Your task to perform on an android device: check android version Image 0: 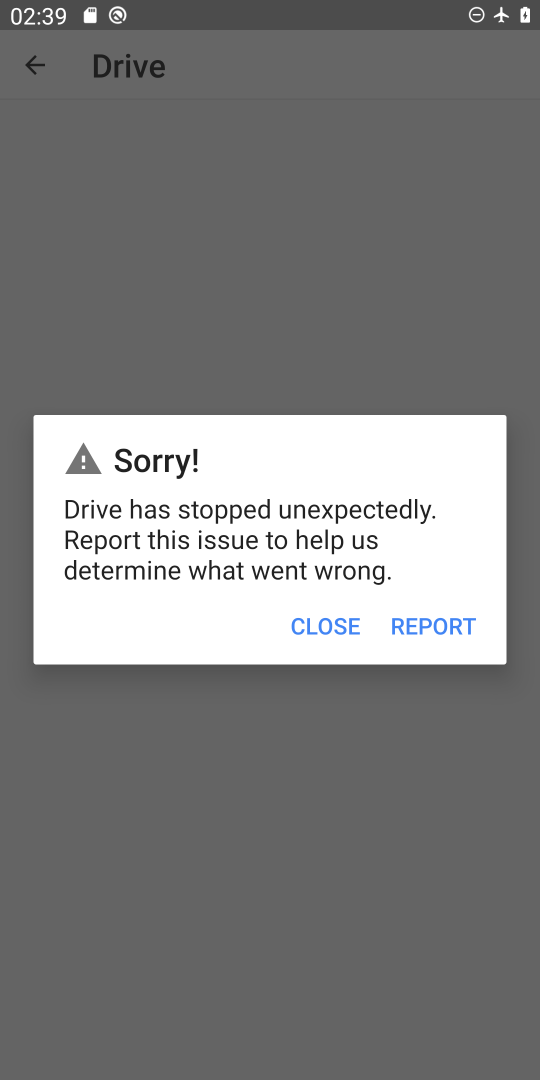
Step 0: press home button
Your task to perform on an android device: check android version Image 1: 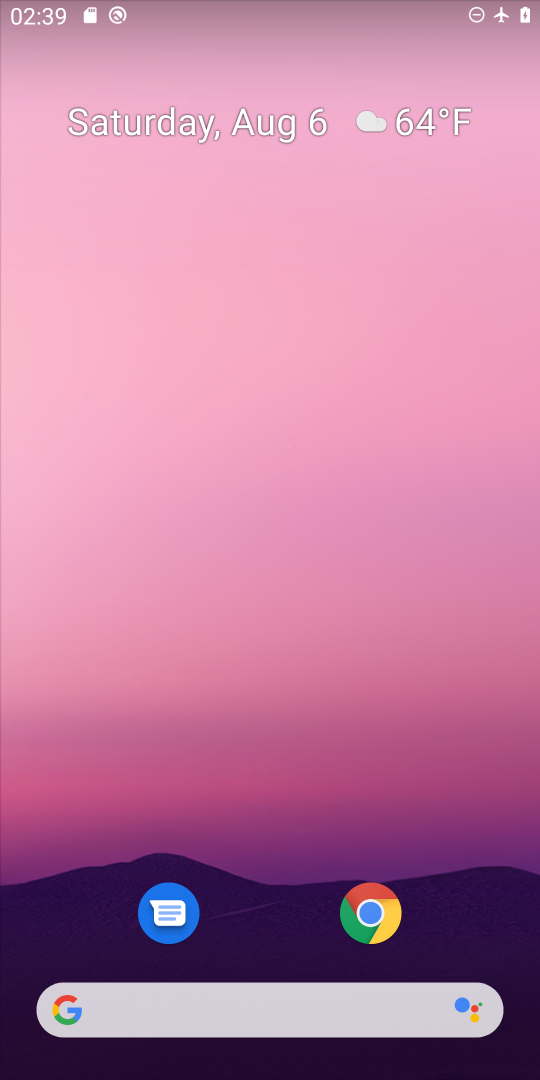
Step 1: drag from (440, 926) to (440, 308)
Your task to perform on an android device: check android version Image 2: 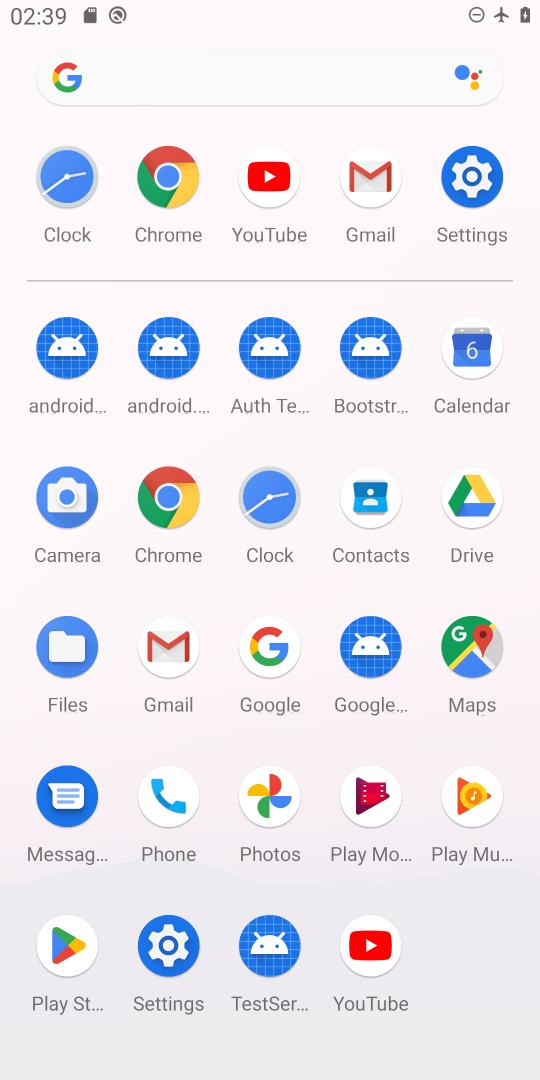
Step 2: click (168, 934)
Your task to perform on an android device: check android version Image 3: 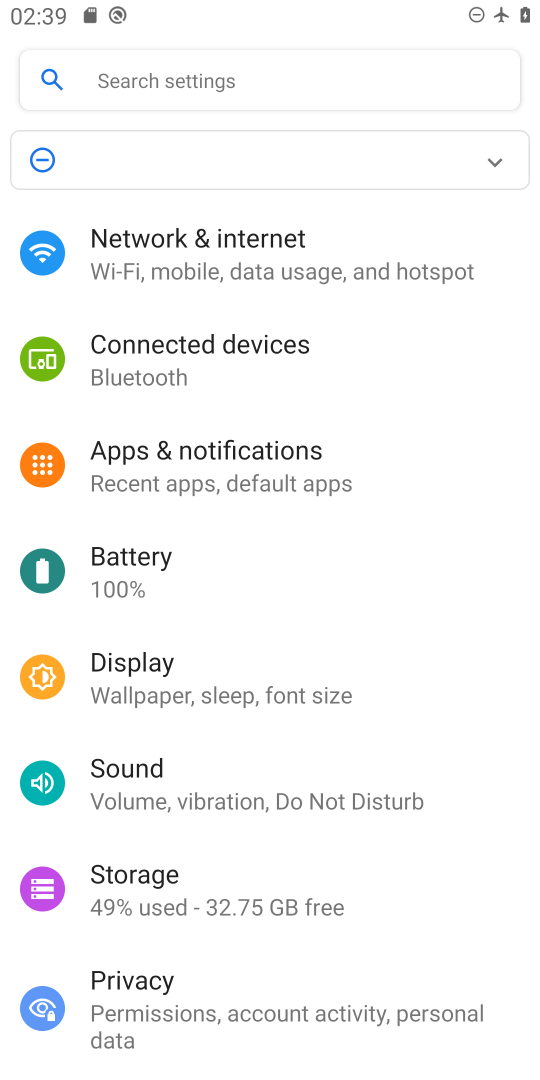
Step 3: drag from (464, 783) to (452, 665)
Your task to perform on an android device: check android version Image 4: 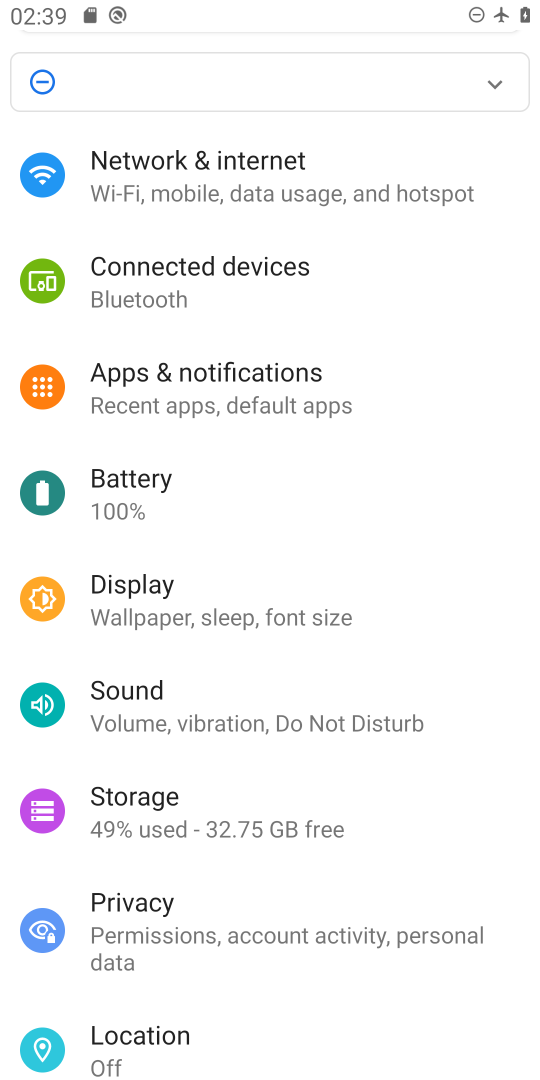
Step 4: drag from (461, 964) to (460, 798)
Your task to perform on an android device: check android version Image 5: 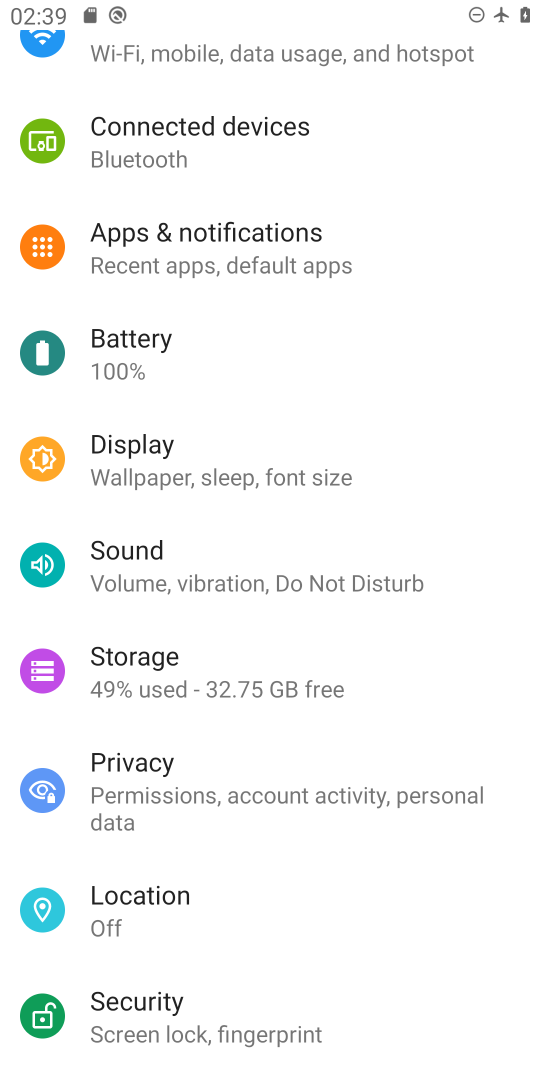
Step 5: drag from (439, 902) to (443, 742)
Your task to perform on an android device: check android version Image 6: 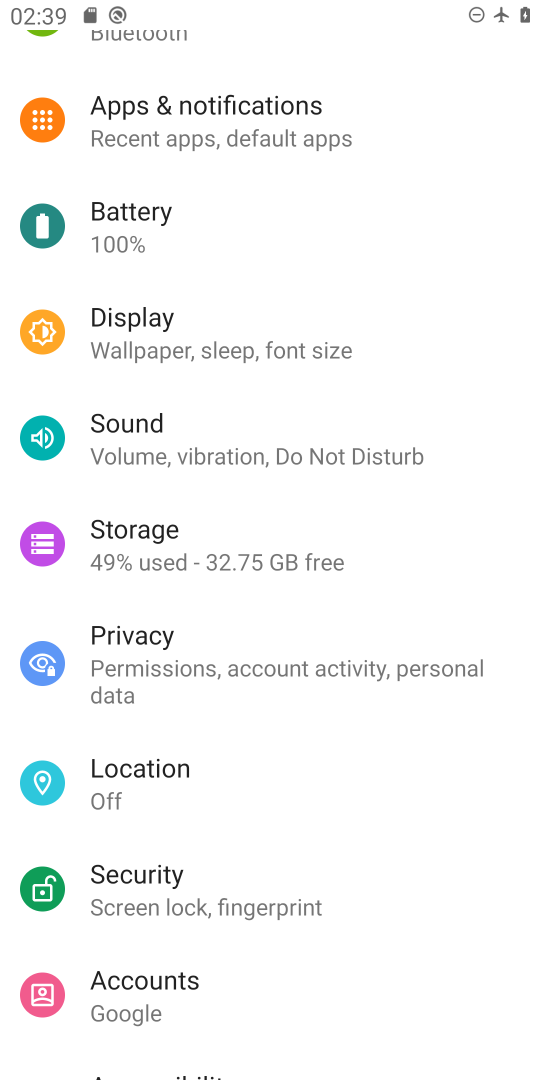
Step 6: drag from (428, 896) to (435, 740)
Your task to perform on an android device: check android version Image 7: 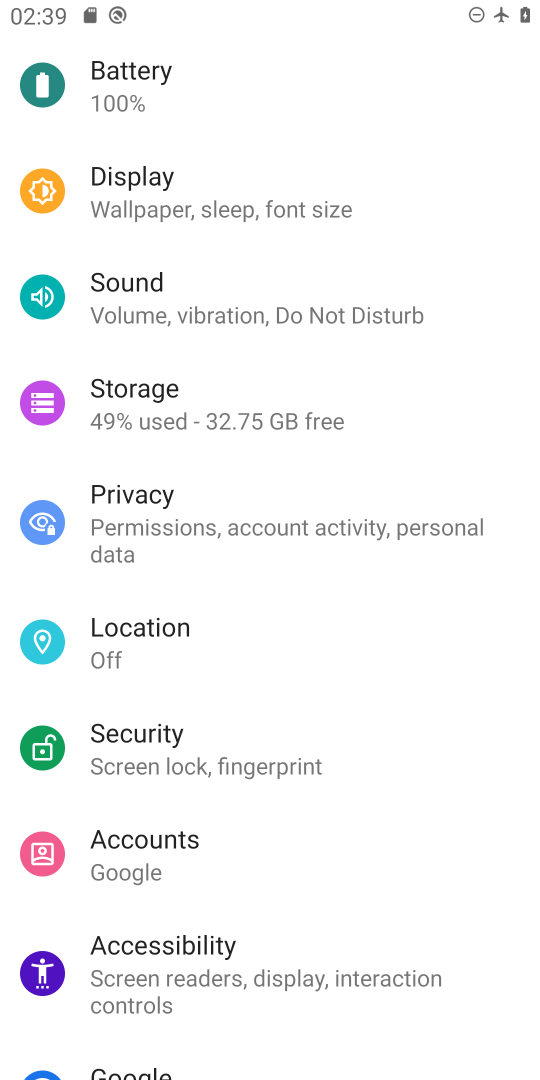
Step 7: drag from (417, 843) to (414, 725)
Your task to perform on an android device: check android version Image 8: 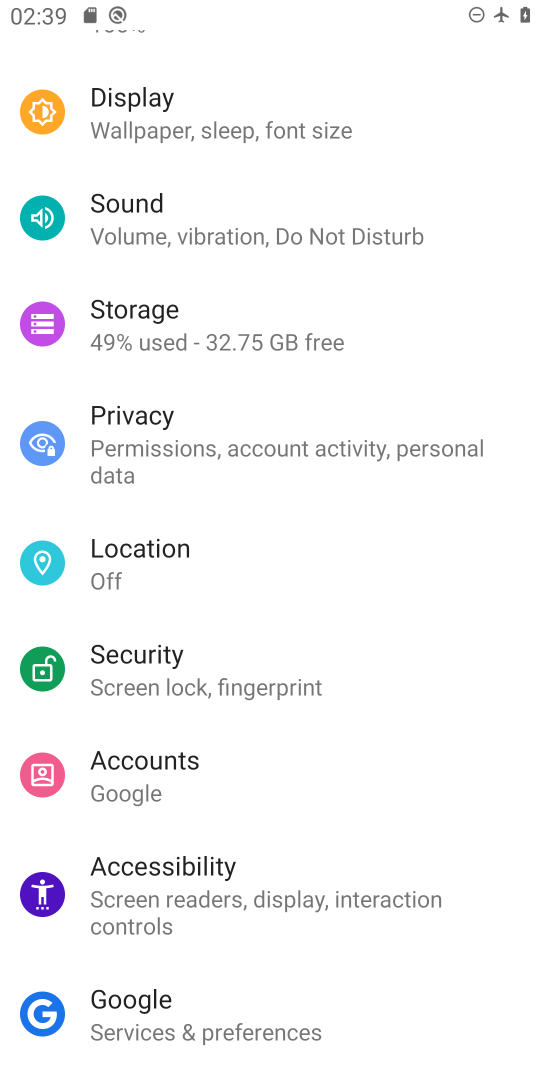
Step 8: drag from (400, 903) to (407, 703)
Your task to perform on an android device: check android version Image 9: 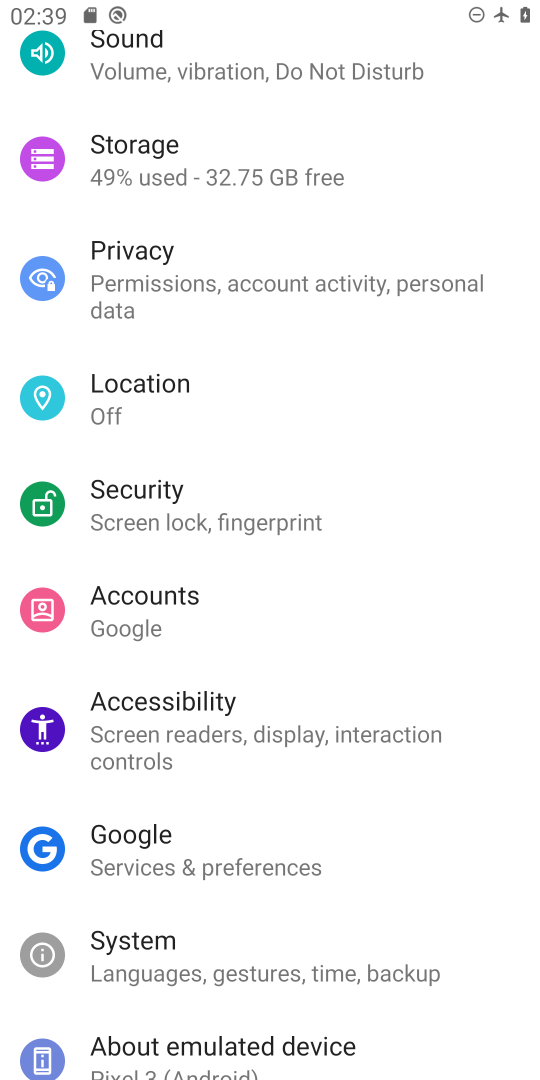
Step 9: click (309, 963)
Your task to perform on an android device: check android version Image 10: 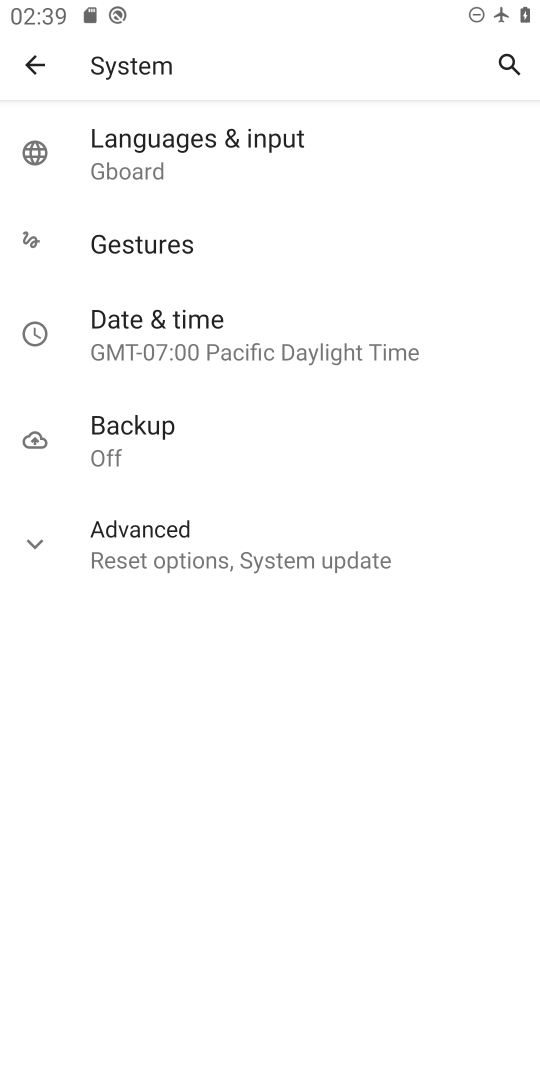
Step 10: click (271, 558)
Your task to perform on an android device: check android version Image 11: 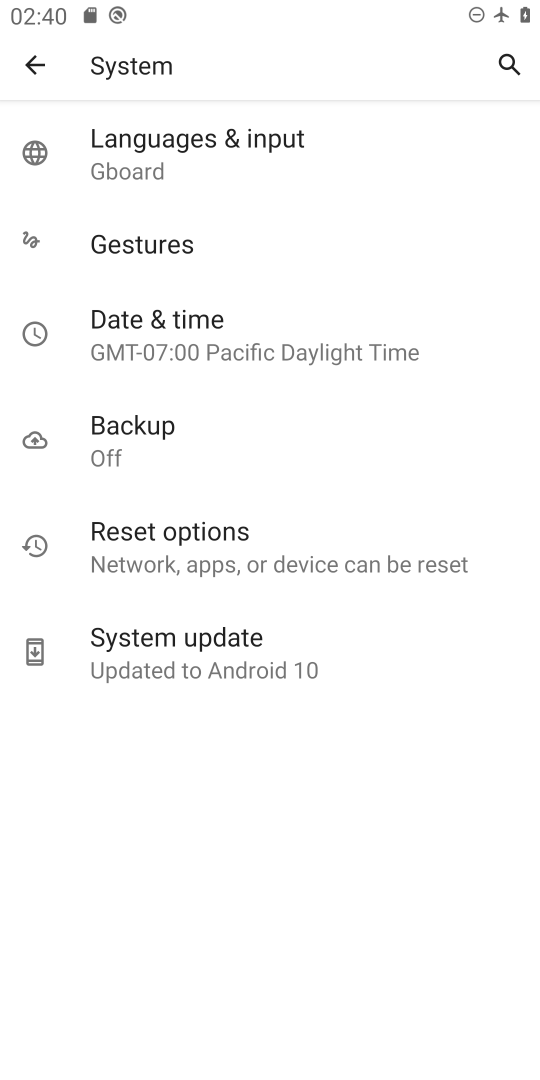
Step 11: task complete